Your task to perform on an android device: move an email to a new category in the gmail app Image 0: 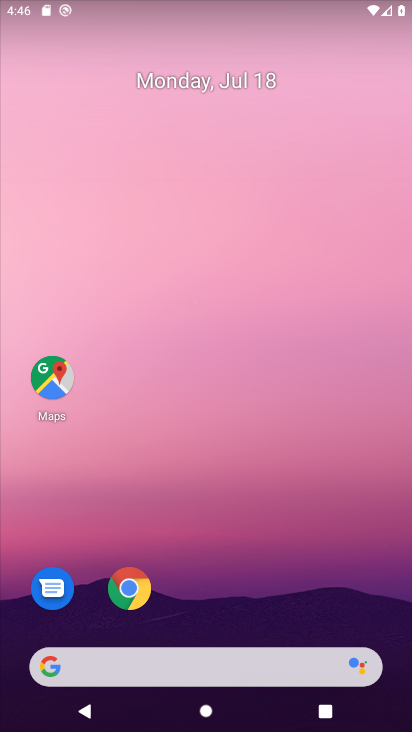
Step 0: drag from (187, 309) to (152, 97)
Your task to perform on an android device: move an email to a new category in the gmail app Image 1: 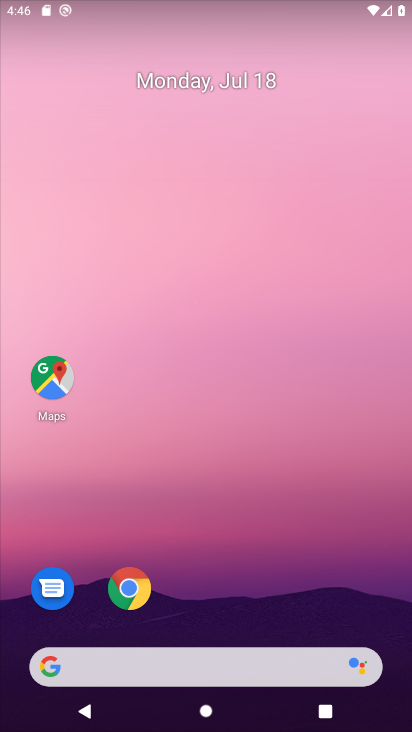
Step 1: drag from (237, 220) to (209, 86)
Your task to perform on an android device: move an email to a new category in the gmail app Image 2: 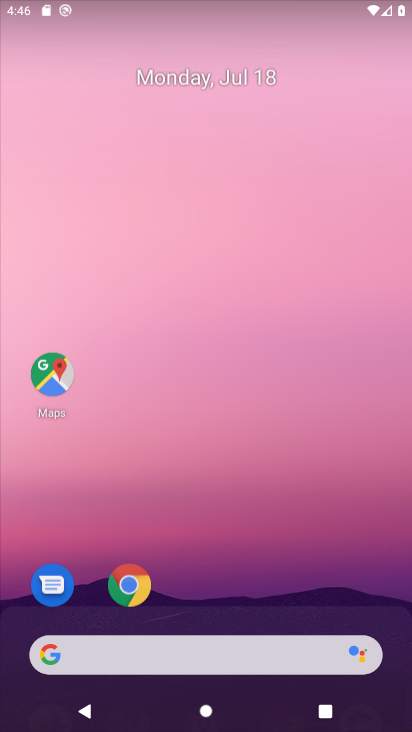
Step 2: drag from (233, 349) to (213, 174)
Your task to perform on an android device: move an email to a new category in the gmail app Image 3: 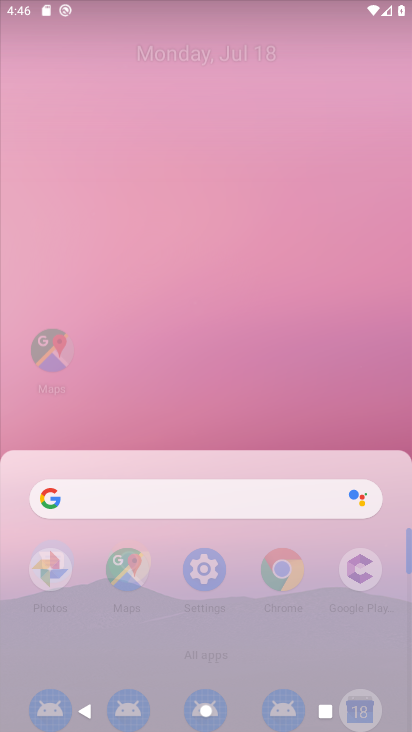
Step 3: drag from (258, 433) to (268, 49)
Your task to perform on an android device: move an email to a new category in the gmail app Image 4: 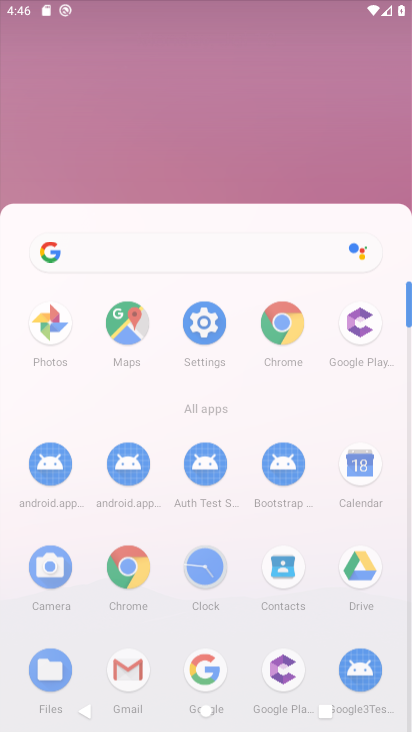
Step 4: drag from (249, 553) to (241, 190)
Your task to perform on an android device: move an email to a new category in the gmail app Image 5: 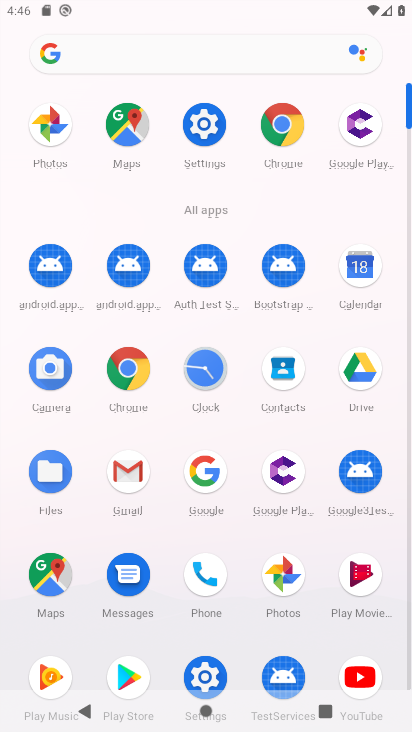
Step 5: click (122, 456)
Your task to perform on an android device: move an email to a new category in the gmail app Image 6: 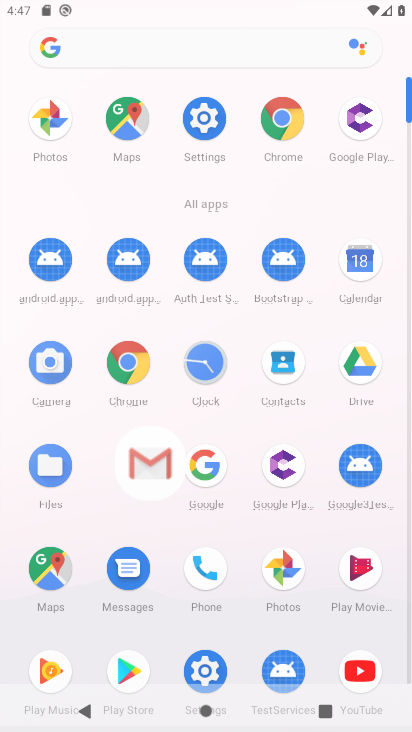
Step 6: click (127, 477)
Your task to perform on an android device: move an email to a new category in the gmail app Image 7: 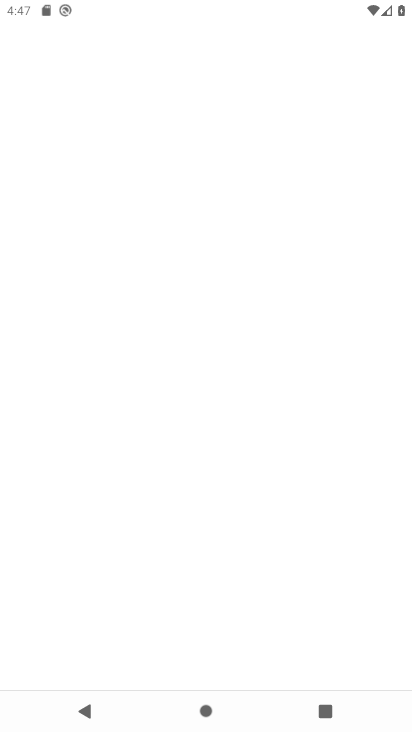
Step 7: click (127, 477)
Your task to perform on an android device: move an email to a new category in the gmail app Image 8: 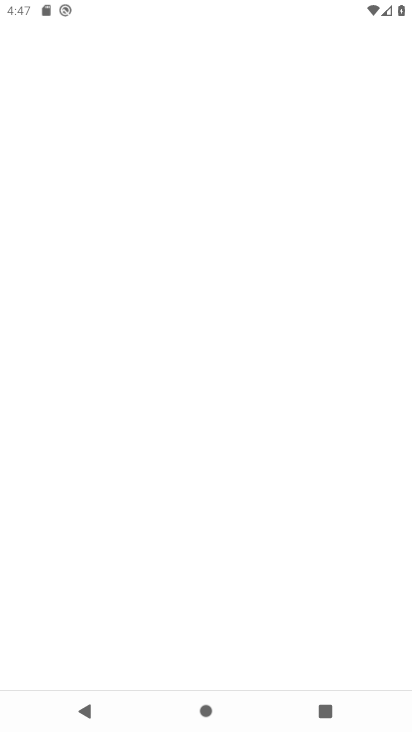
Step 8: click (127, 477)
Your task to perform on an android device: move an email to a new category in the gmail app Image 9: 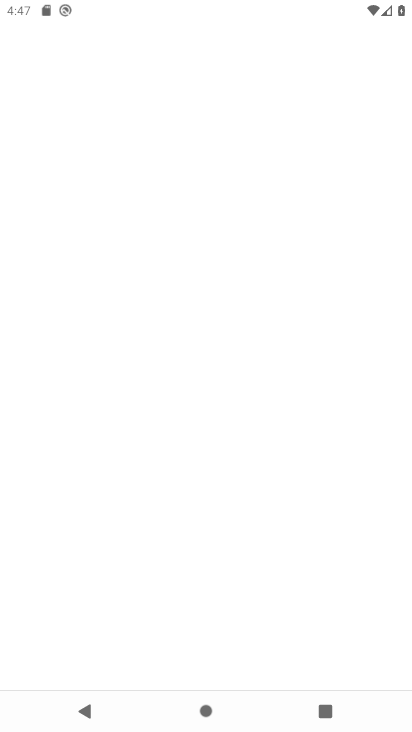
Step 9: click (130, 479)
Your task to perform on an android device: move an email to a new category in the gmail app Image 10: 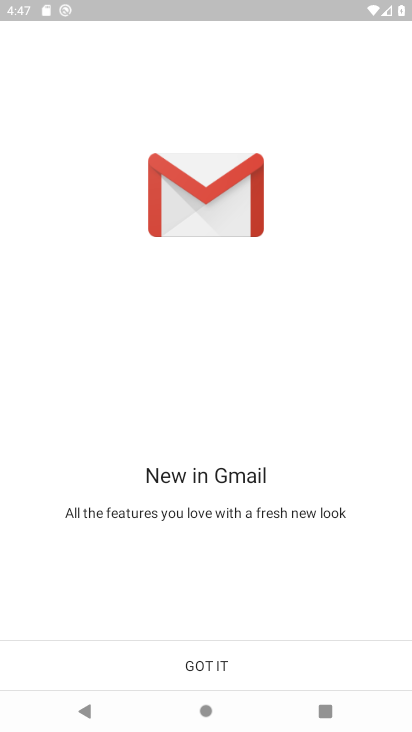
Step 10: click (210, 636)
Your task to perform on an android device: move an email to a new category in the gmail app Image 11: 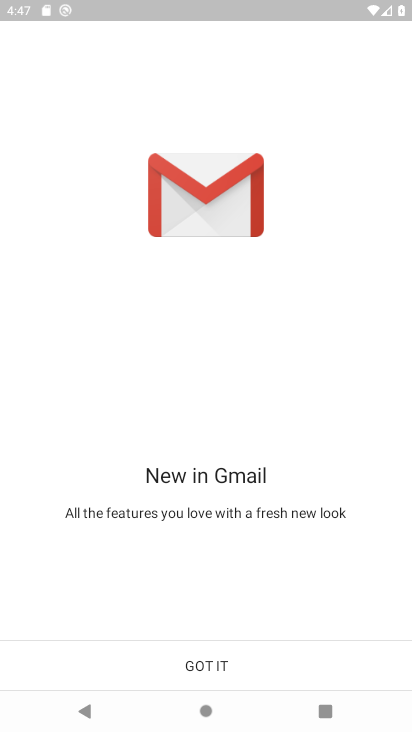
Step 11: click (211, 676)
Your task to perform on an android device: move an email to a new category in the gmail app Image 12: 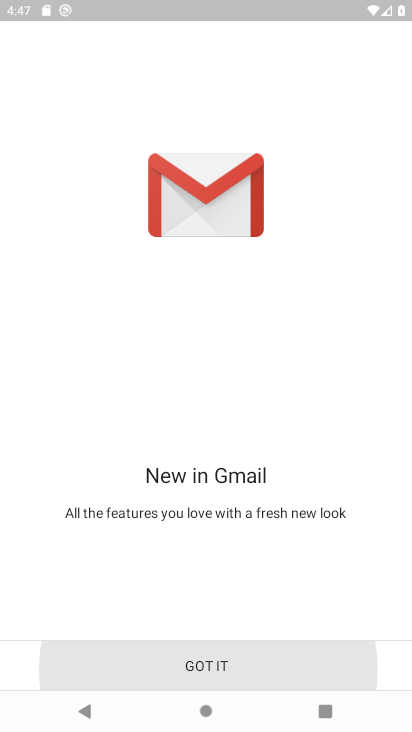
Step 12: click (215, 677)
Your task to perform on an android device: move an email to a new category in the gmail app Image 13: 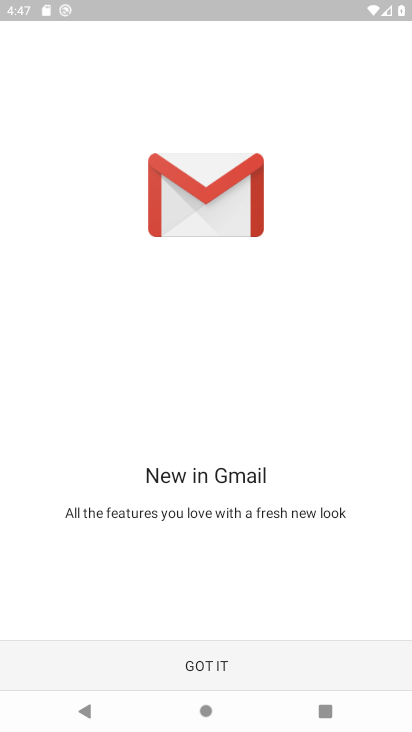
Step 13: click (219, 675)
Your task to perform on an android device: move an email to a new category in the gmail app Image 14: 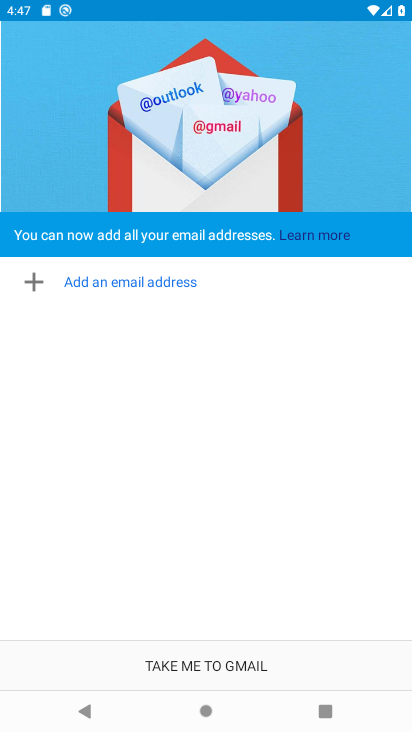
Step 14: click (244, 668)
Your task to perform on an android device: move an email to a new category in the gmail app Image 15: 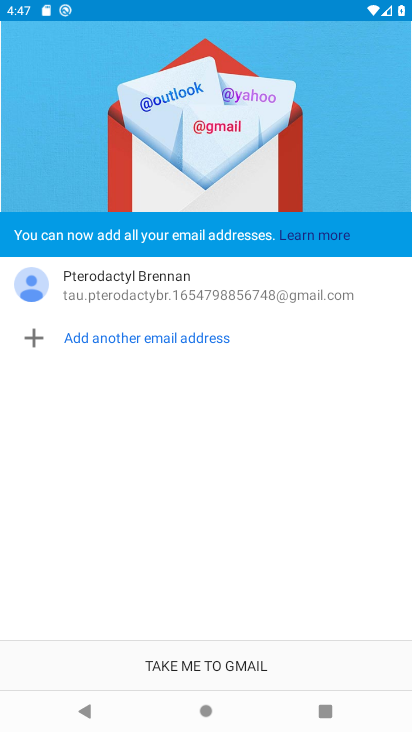
Step 15: drag from (231, 655) to (271, 675)
Your task to perform on an android device: move an email to a new category in the gmail app Image 16: 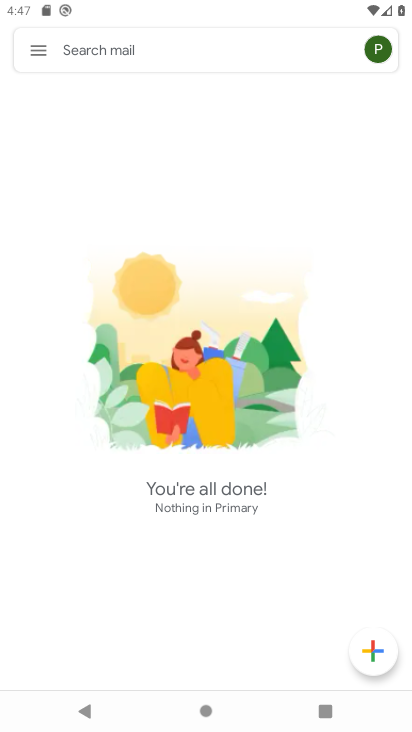
Step 16: click (37, 43)
Your task to perform on an android device: move an email to a new category in the gmail app Image 17: 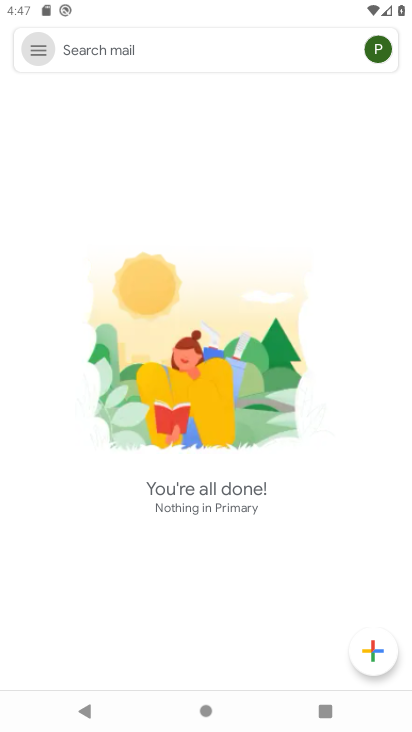
Step 17: click (37, 43)
Your task to perform on an android device: move an email to a new category in the gmail app Image 18: 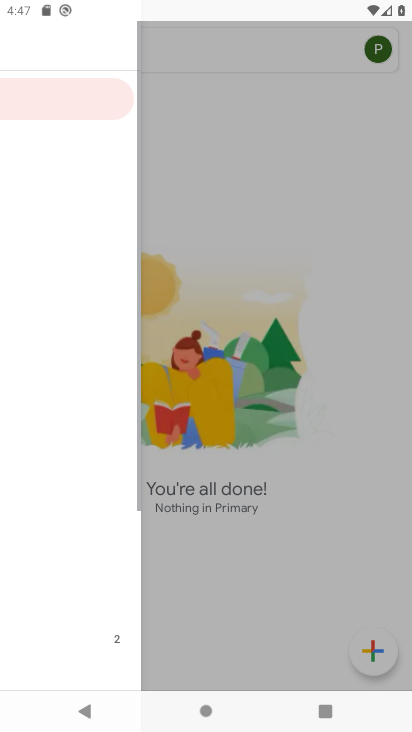
Step 18: click (37, 43)
Your task to perform on an android device: move an email to a new category in the gmail app Image 19: 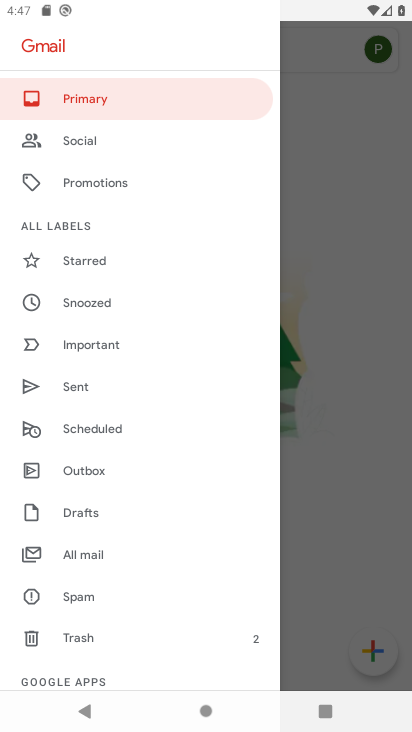
Step 19: click (84, 547)
Your task to perform on an android device: move an email to a new category in the gmail app Image 20: 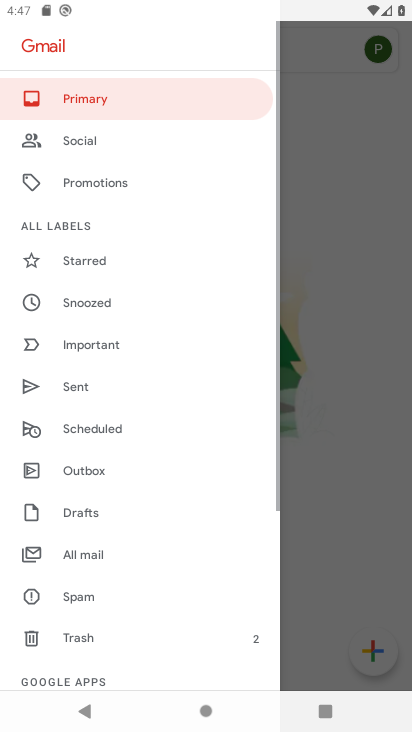
Step 20: click (101, 582)
Your task to perform on an android device: move an email to a new category in the gmail app Image 21: 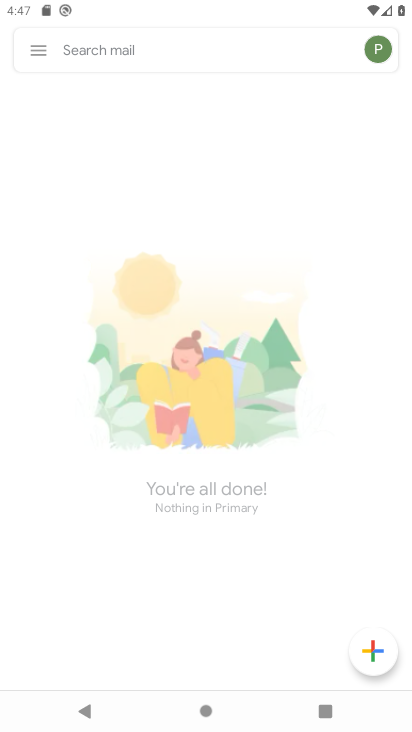
Step 21: click (95, 547)
Your task to perform on an android device: move an email to a new category in the gmail app Image 22: 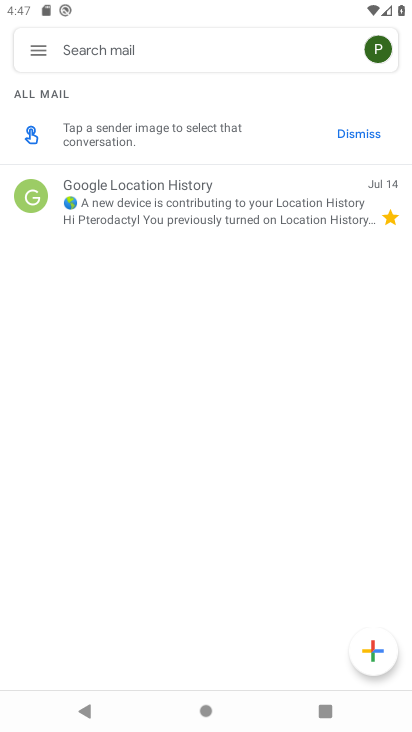
Step 22: click (194, 217)
Your task to perform on an android device: move an email to a new category in the gmail app Image 23: 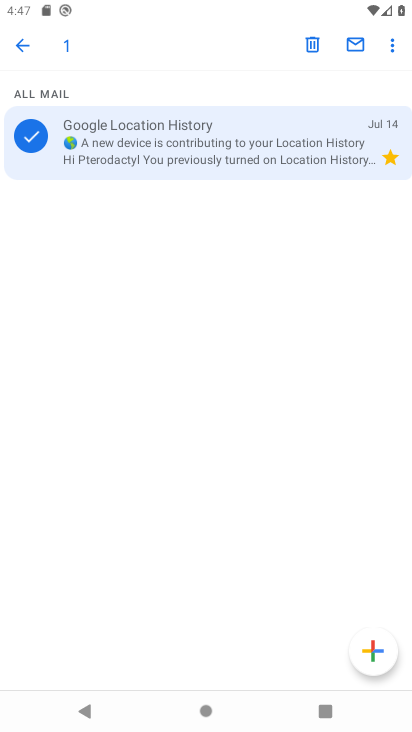
Step 23: click (385, 49)
Your task to perform on an android device: move an email to a new category in the gmail app Image 24: 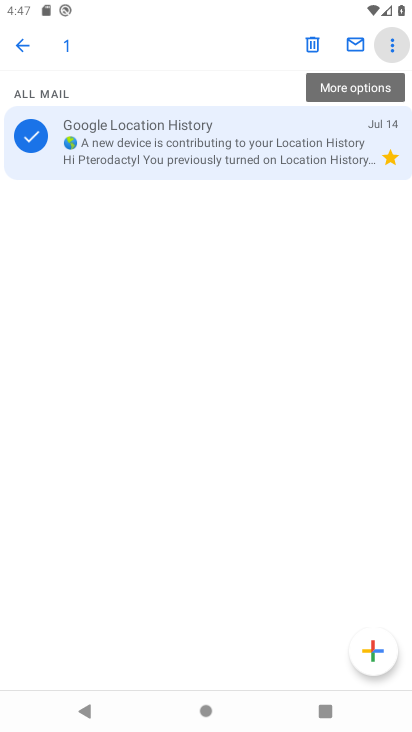
Step 24: click (385, 49)
Your task to perform on an android device: move an email to a new category in the gmail app Image 25: 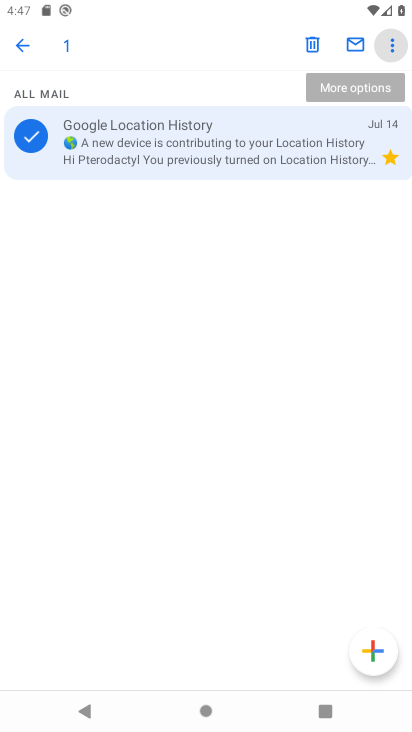
Step 25: click (385, 49)
Your task to perform on an android device: move an email to a new category in the gmail app Image 26: 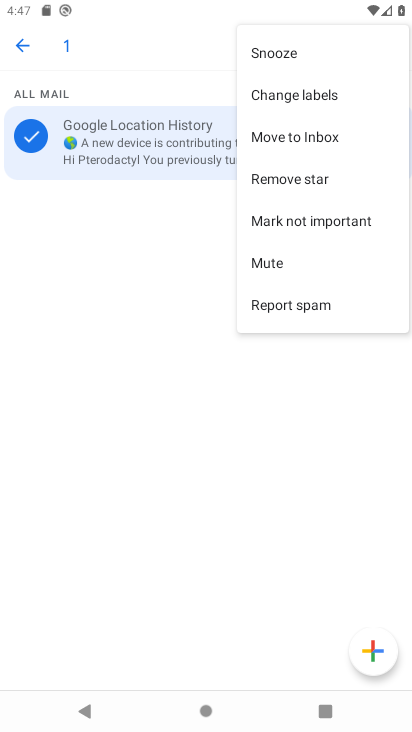
Step 26: click (291, 180)
Your task to perform on an android device: move an email to a new category in the gmail app Image 27: 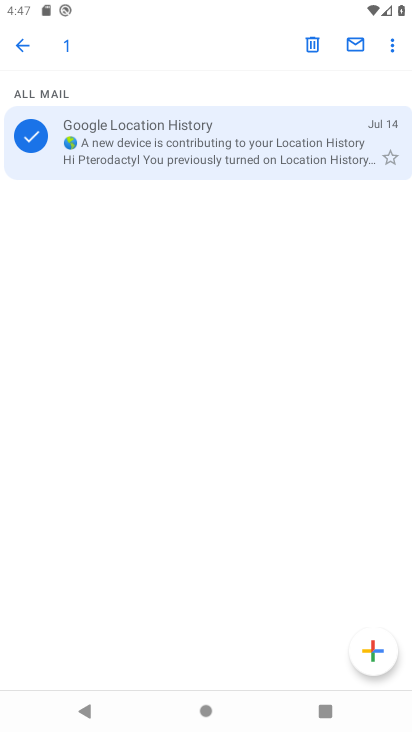
Step 27: task complete